Your task to perform on an android device: Clear the cart on ebay.com. Search for "usb-c to usb-b" on ebay.com, select the first entry, add it to the cart, then select checkout. Image 0: 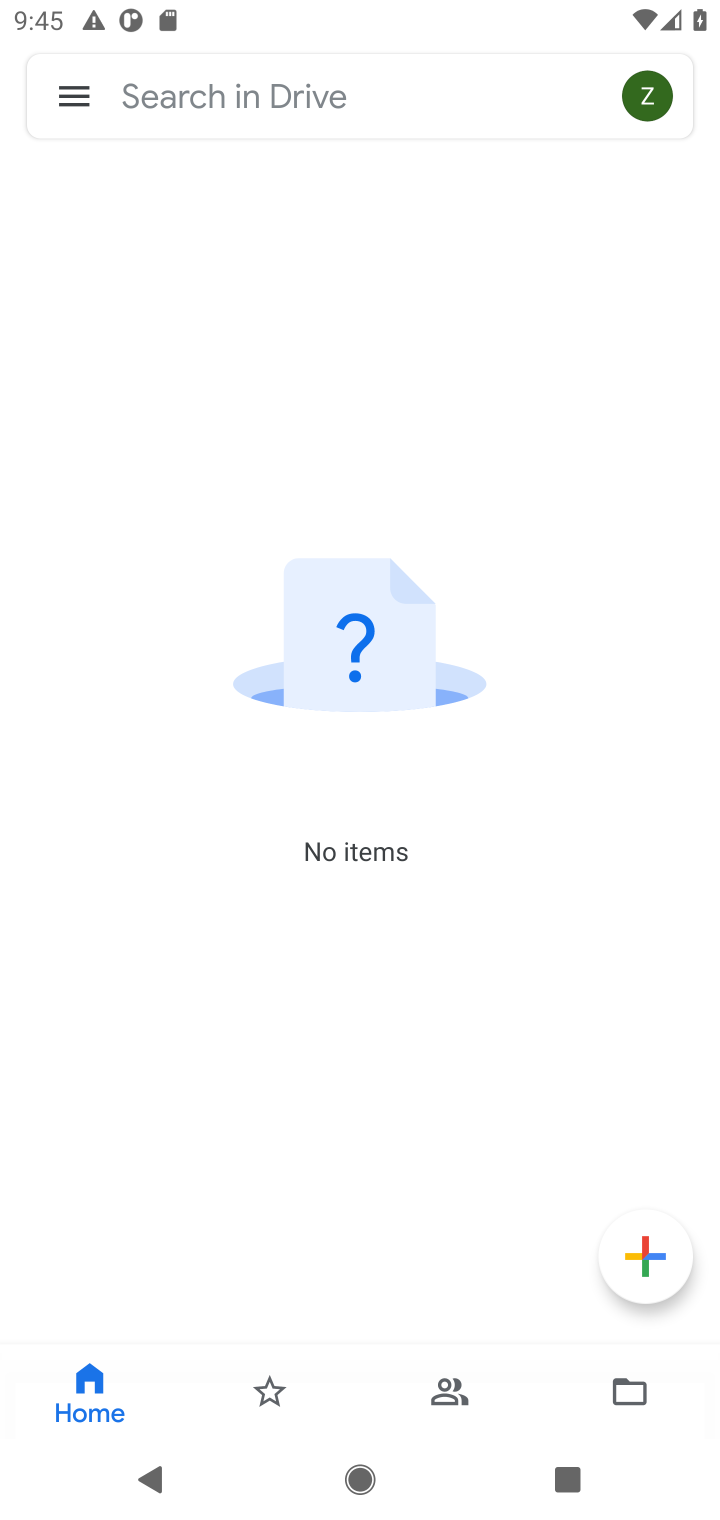
Step 0: press home button
Your task to perform on an android device: Clear the cart on ebay.com. Search for "usb-c to usb-b" on ebay.com, select the first entry, add it to the cart, then select checkout. Image 1: 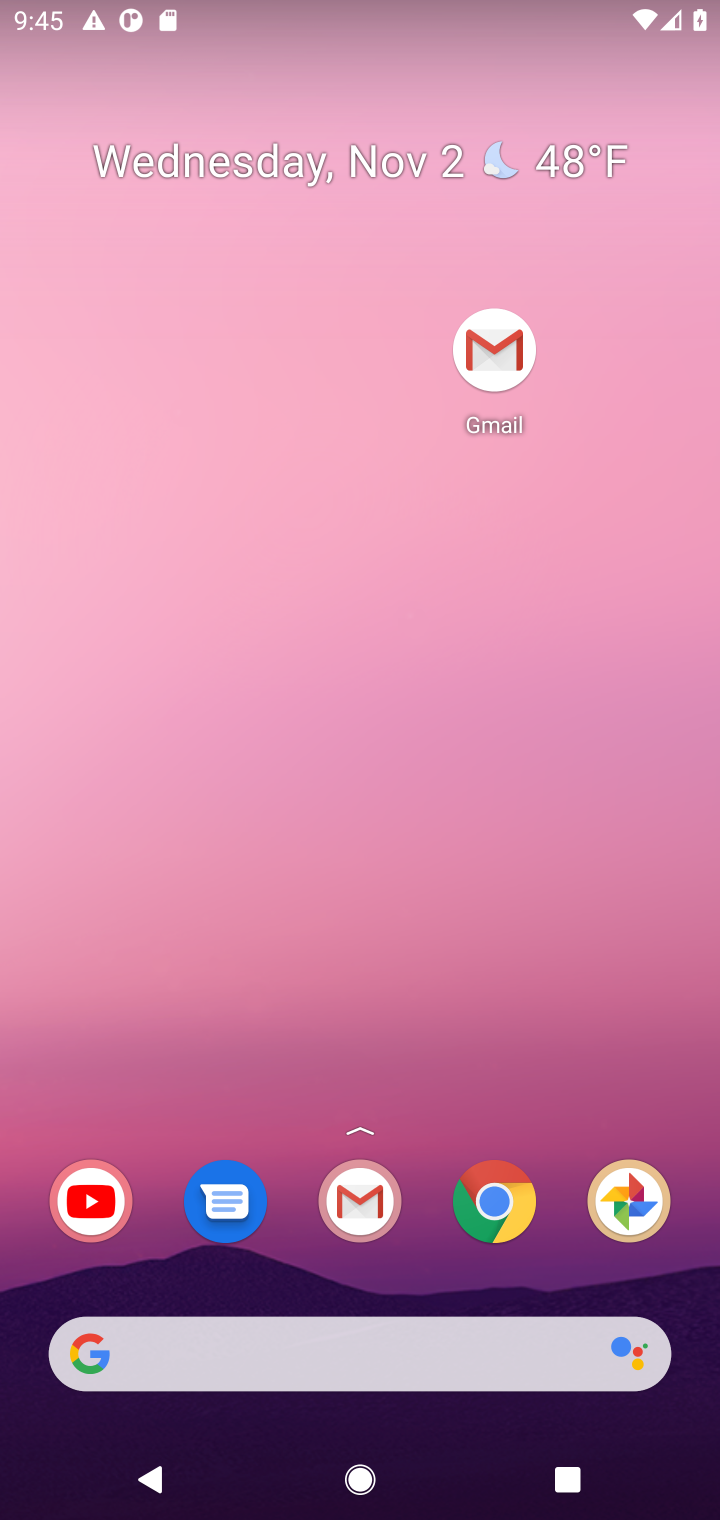
Step 1: drag from (443, 1136) to (381, 117)
Your task to perform on an android device: Clear the cart on ebay.com. Search for "usb-c to usb-b" on ebay.com, select the first entry, add it to the cart, then select checkout. Image 2: 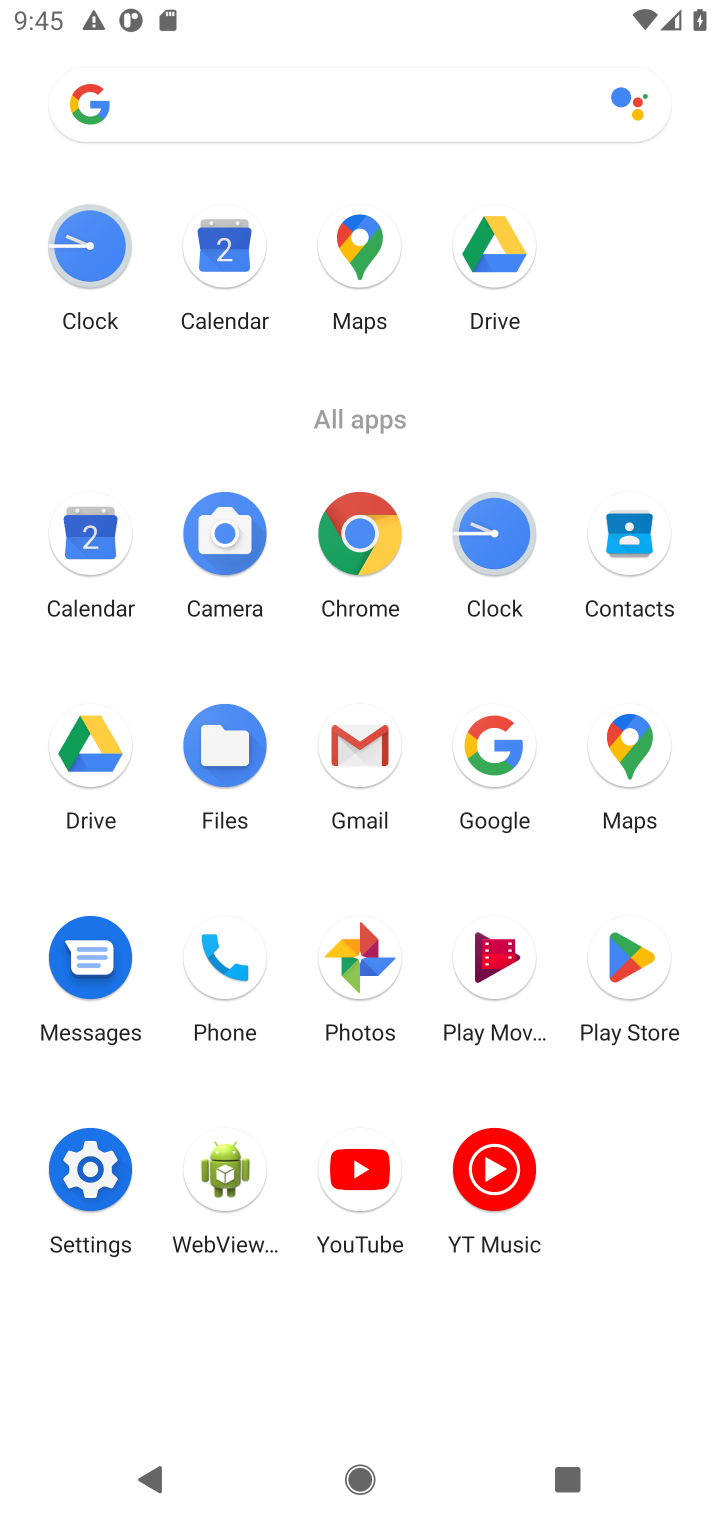
Step 2: click (360, 538)
Your task to perform on an android device: Clear the cart on ebay.com. Search for "usb-c to usb-b" on ebay.com, select the first entry, add it to the cart, then select checkout. Image 3: 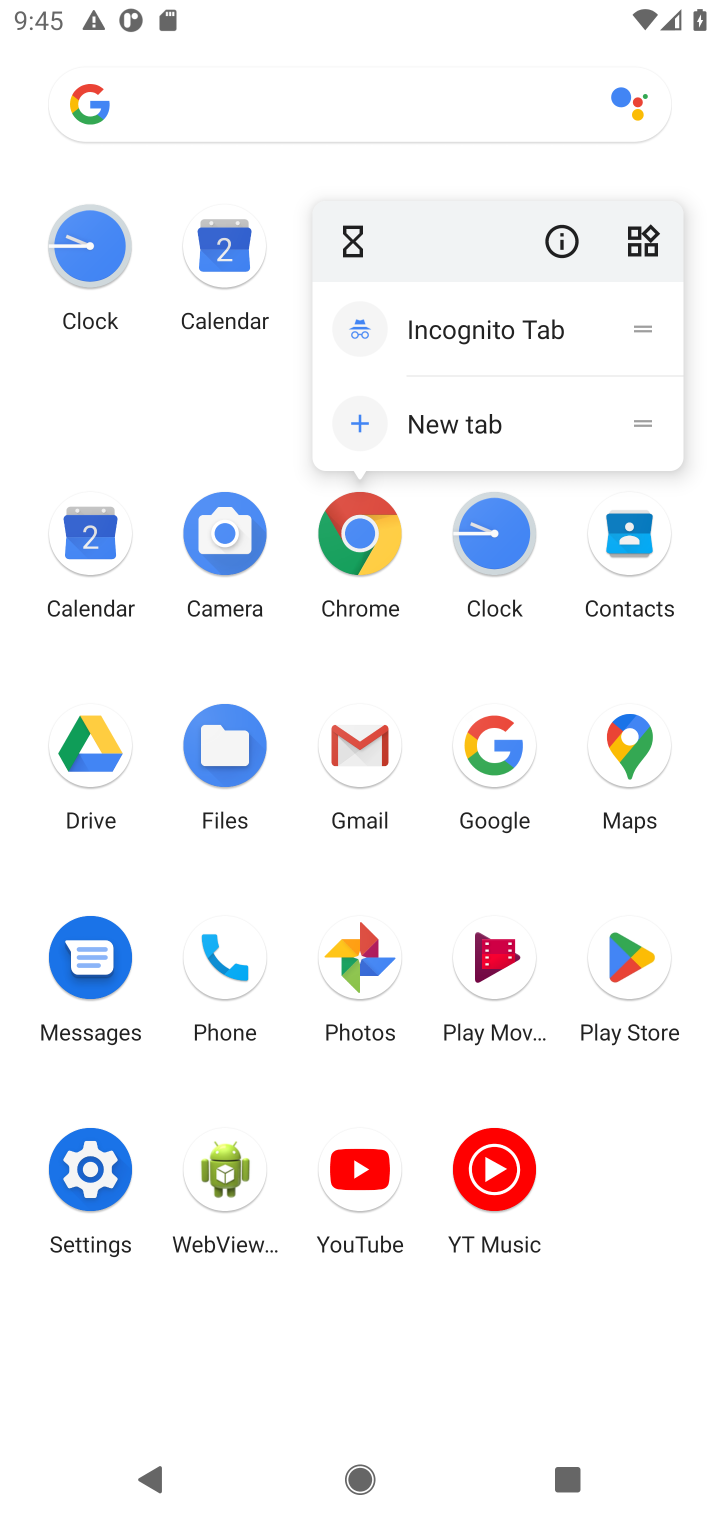
Step 3: click (360, 538)
Your task to perform on an android device: Clear the cart on ebay.com. Search for "usb-c to usb-b" on ebay.com, select the first entry, add it to the cart, then select checkout. Image 4: 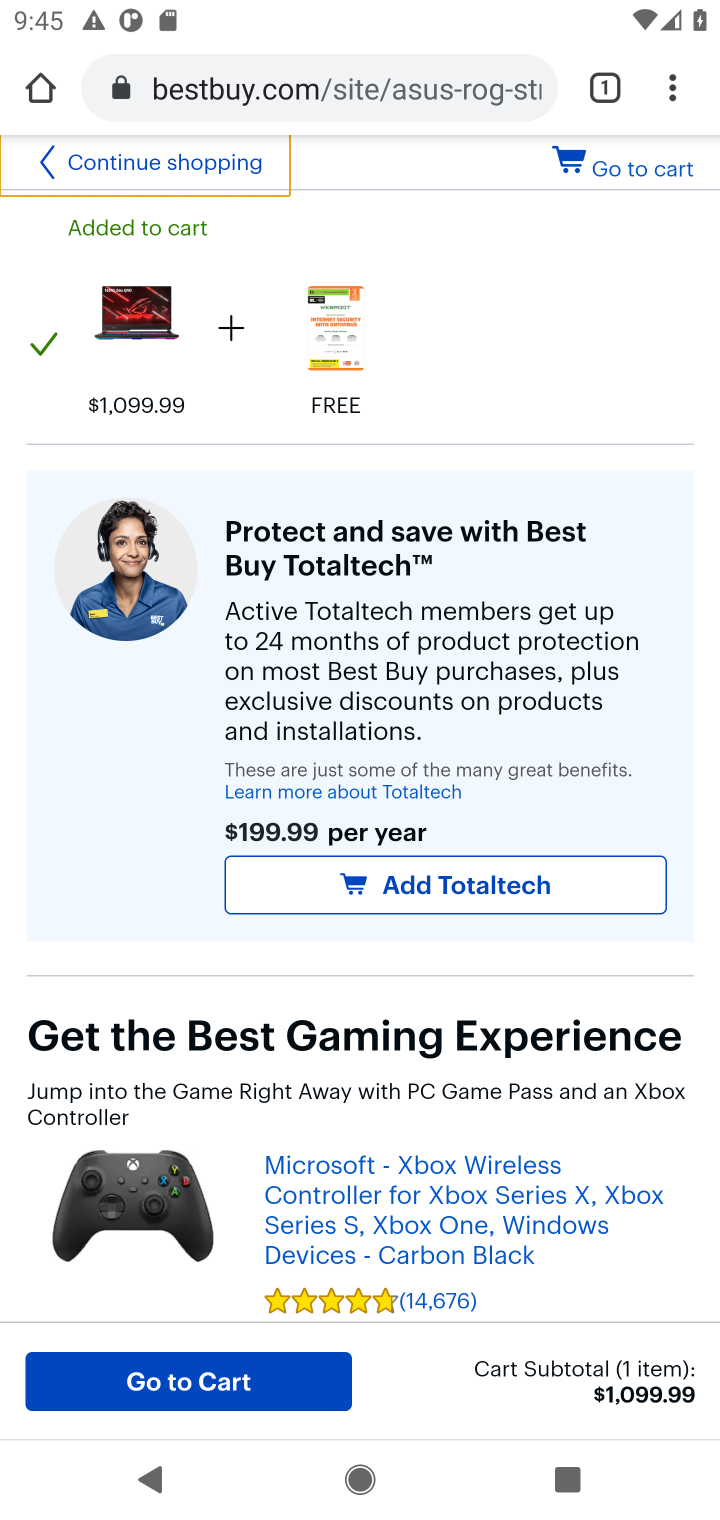
Step 4: click (360, 92)
Your task to perform on an android device: Clear the cart on ebay.com. Search for "usb-c to usb-b" on ebay.com, select the first entry, add it to the cart, then select checkout. Image 5: 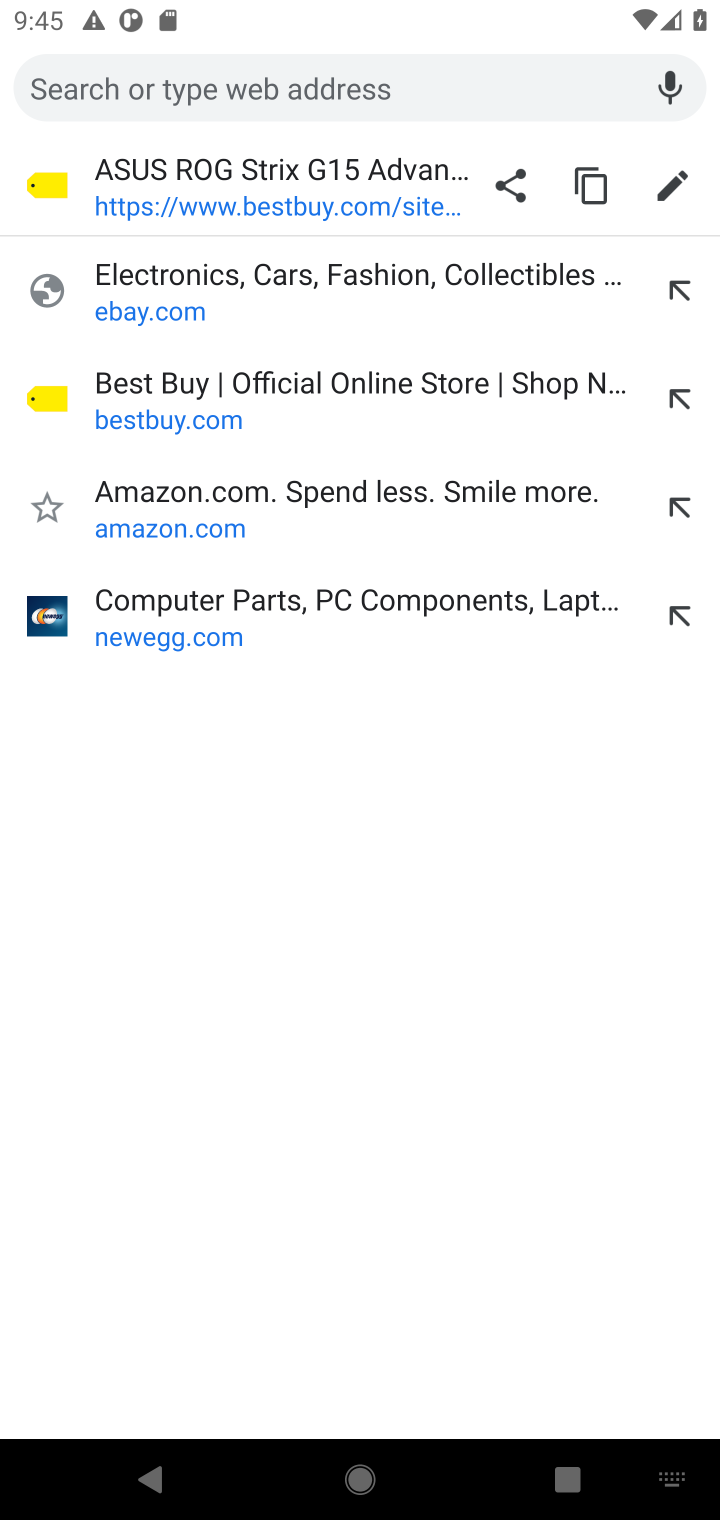
Step 5: type "ebay.com"
Your task to perform on an android device: Clear the cart on ebay.com. Search for "usb-c to usb-b" on ebay.com, select the first entry, add it to the cart, then select checkout. Image 6: 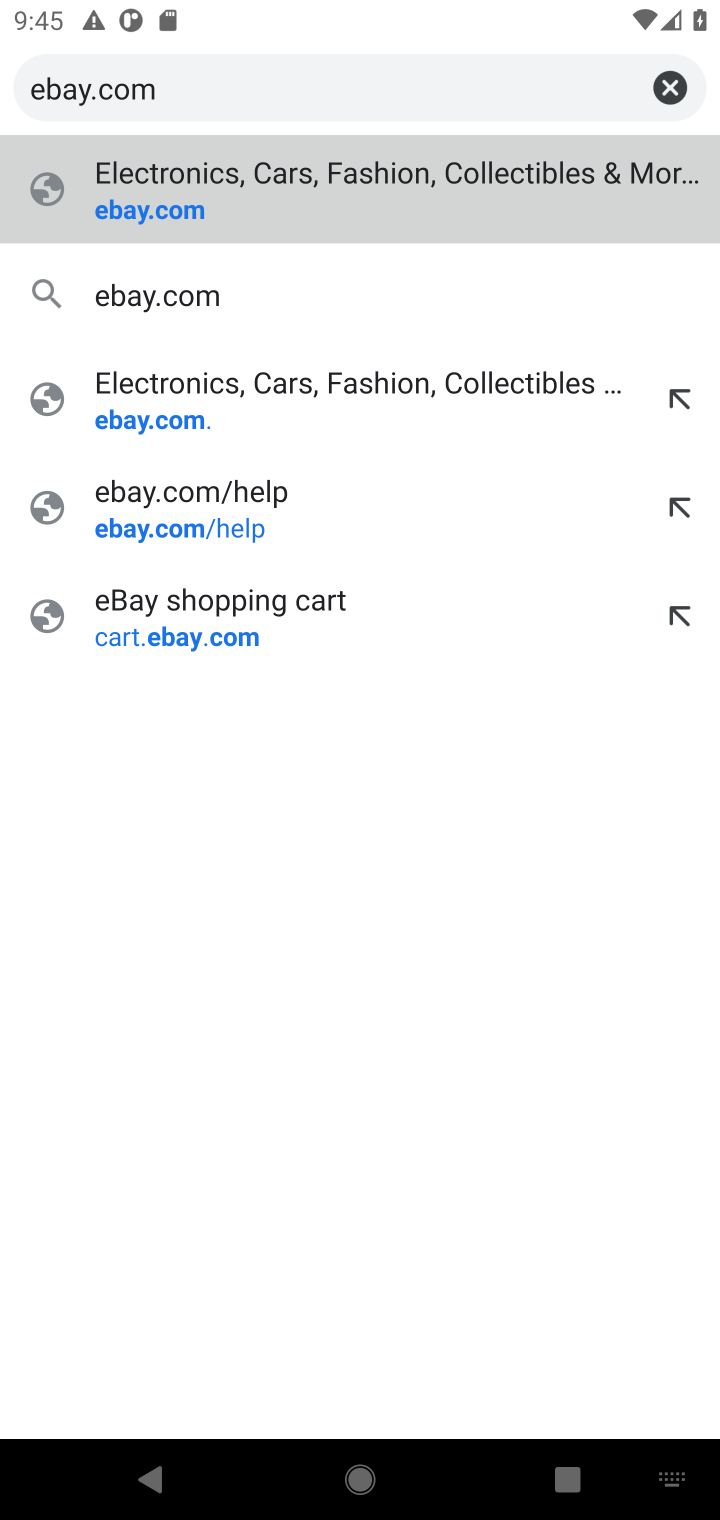
Step 6: press enter
Your task to perform on an android device: Clear the cart on ebay.com. Search for "usb-c to usb-b" on ebay.com, select the first entry, add it to the cart, then select checkout. Image 7: 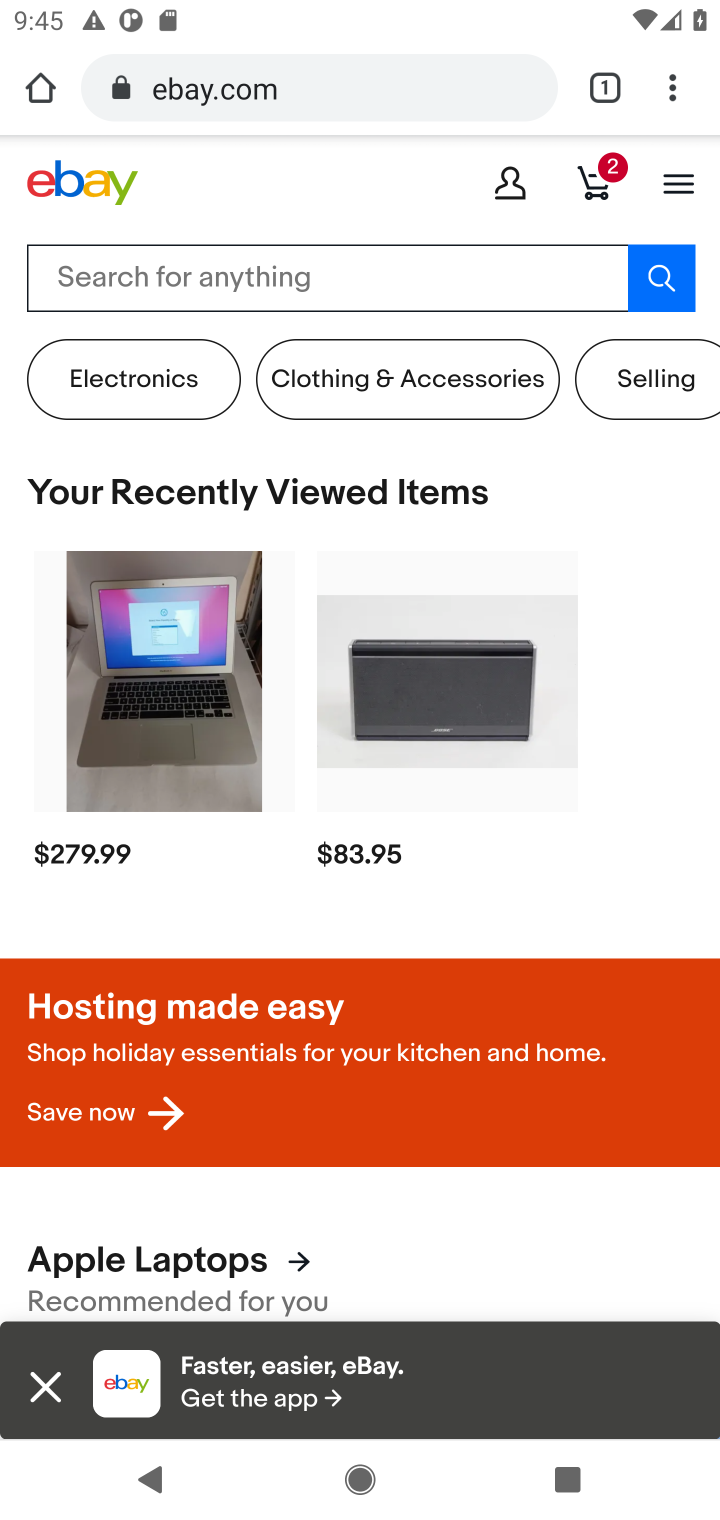
Step 7: click (604, 186)
Your task to perform on an android device: Clear the cart on ebay.com. Search for "usb-c to usb-b" on ebay.com, select the first entry, add it to the cart, then select checkout. Image 8: 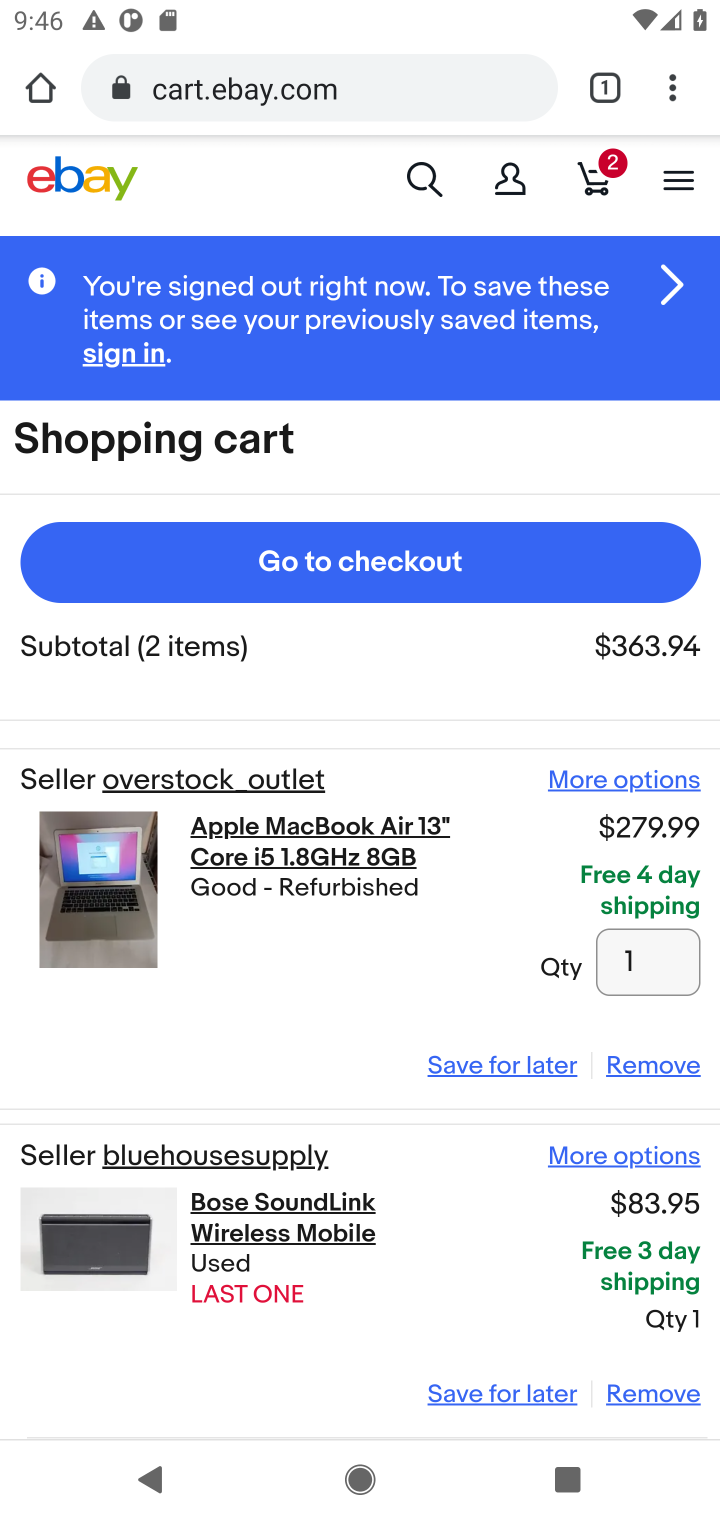
Step 8: click (628, 1066)
Your task to perform on an android device: Clear the cart on ebay.com. Search for "usb-c to usb-b" on ebay.com, select the first entry, add it to the cart, then select checkout. Image 9: 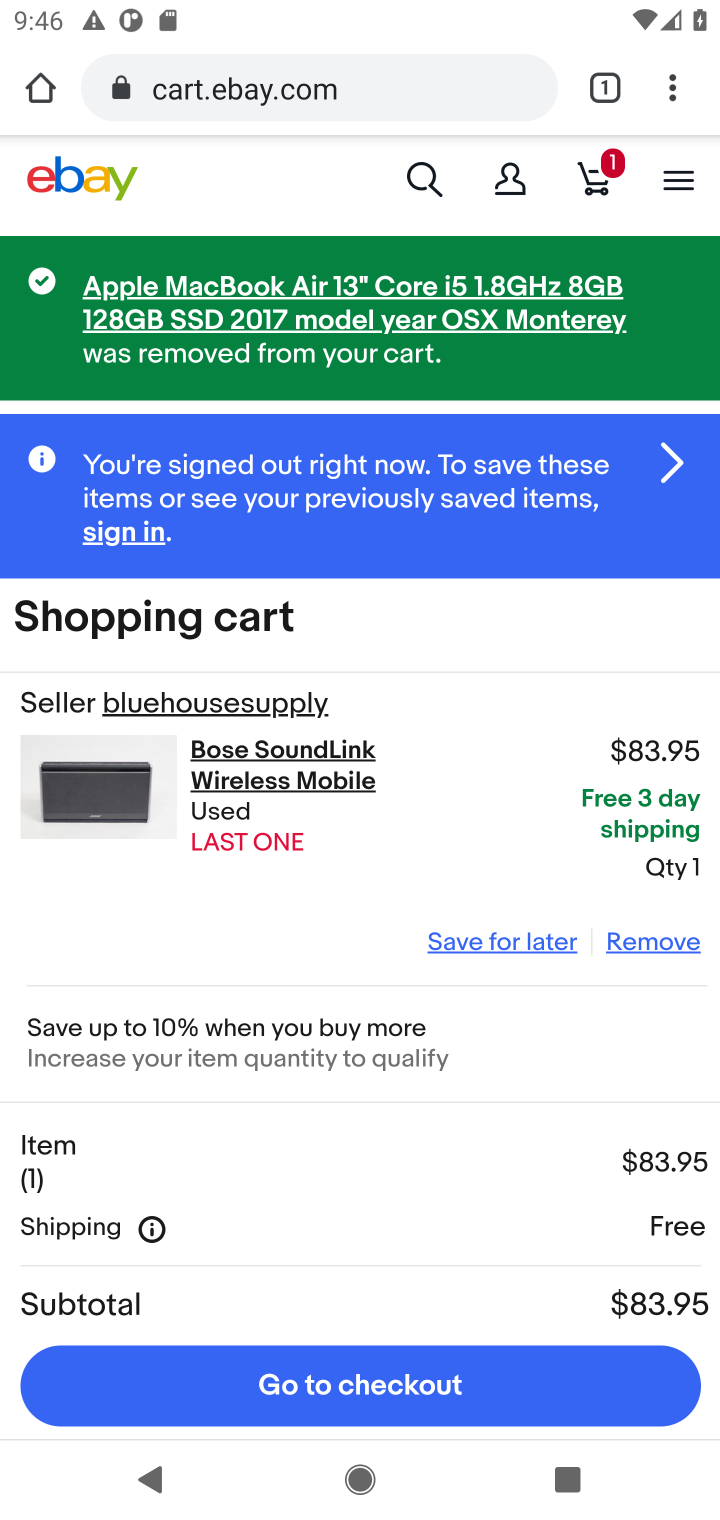
Step 9: click (649, 958)
Your task to perform on an android device: Clear the cart on ebay.com. Search for "usb-c to usb-b" on ebay.com, select the first entry, add it to the cart, then select checkout. Image 10: 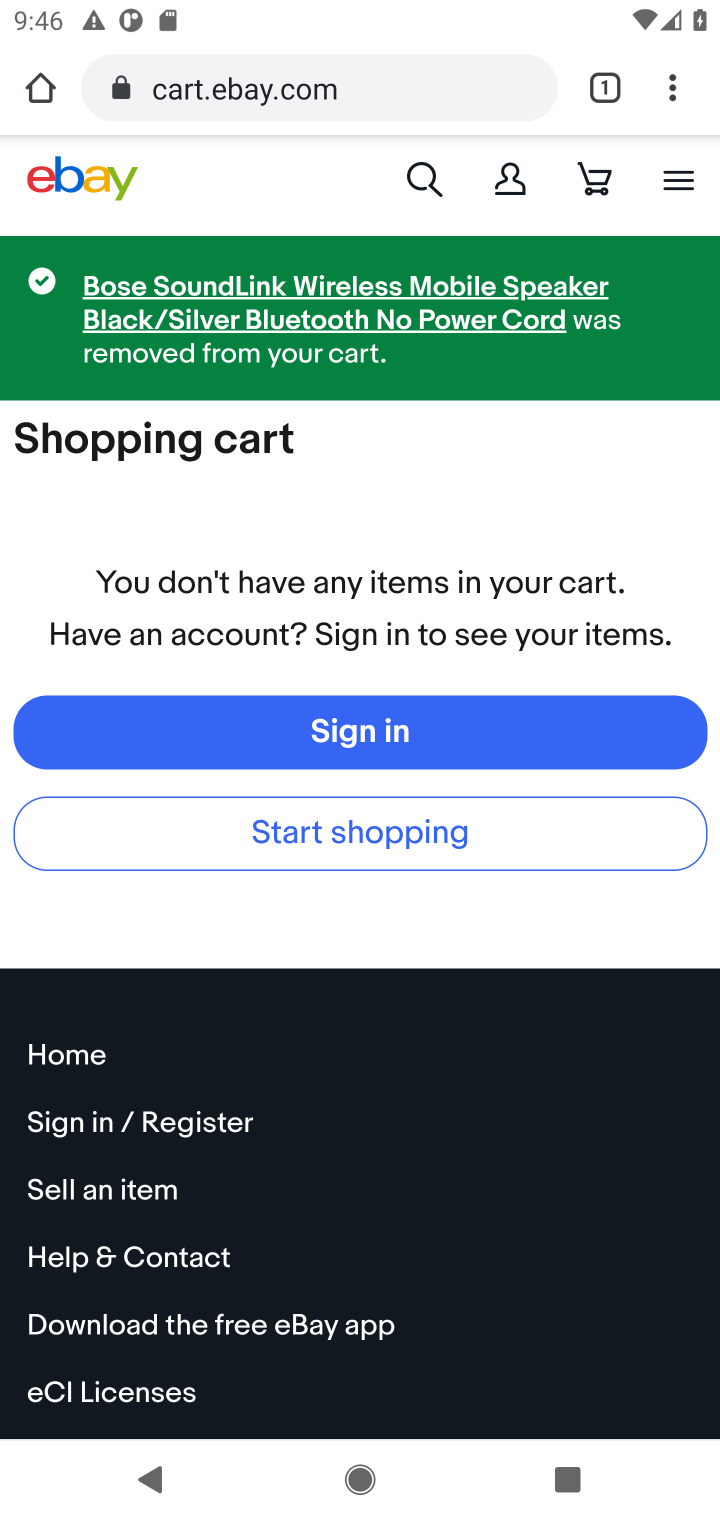
Step 10: click (395, 160)
Your task to perform on an android device: Clear the cart on ebay.com. Search for "usb-c to usb-b" on ebay.com, select the first entry, add it to the cart, then select checkout. Image 11: 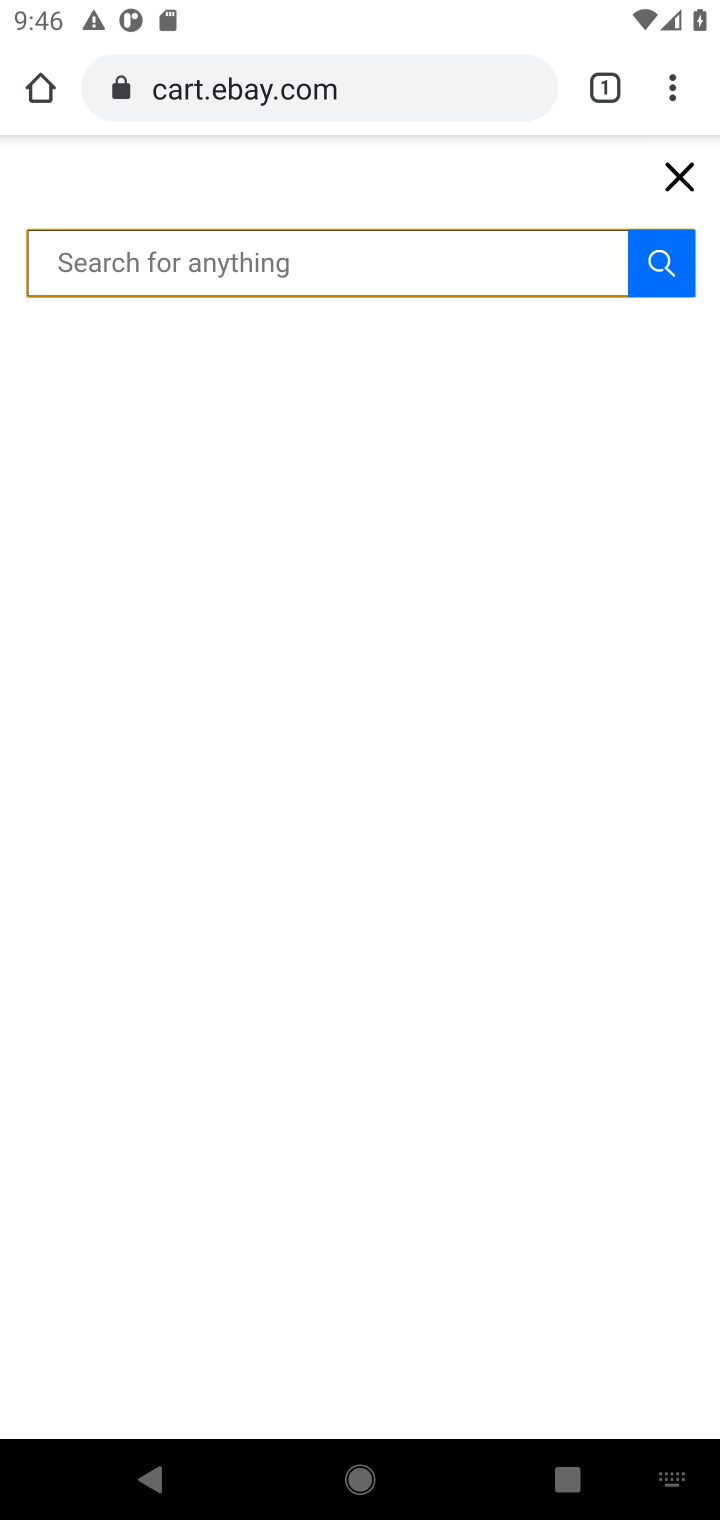
Step 11: type "usb-c to usb-b"
Your task to perform on an android device: Clear the cart on ebay.com. Search for "usb-c to usb-b" on ebay.com, select the first entry, add it to the cart, then select checkout. Image 12: 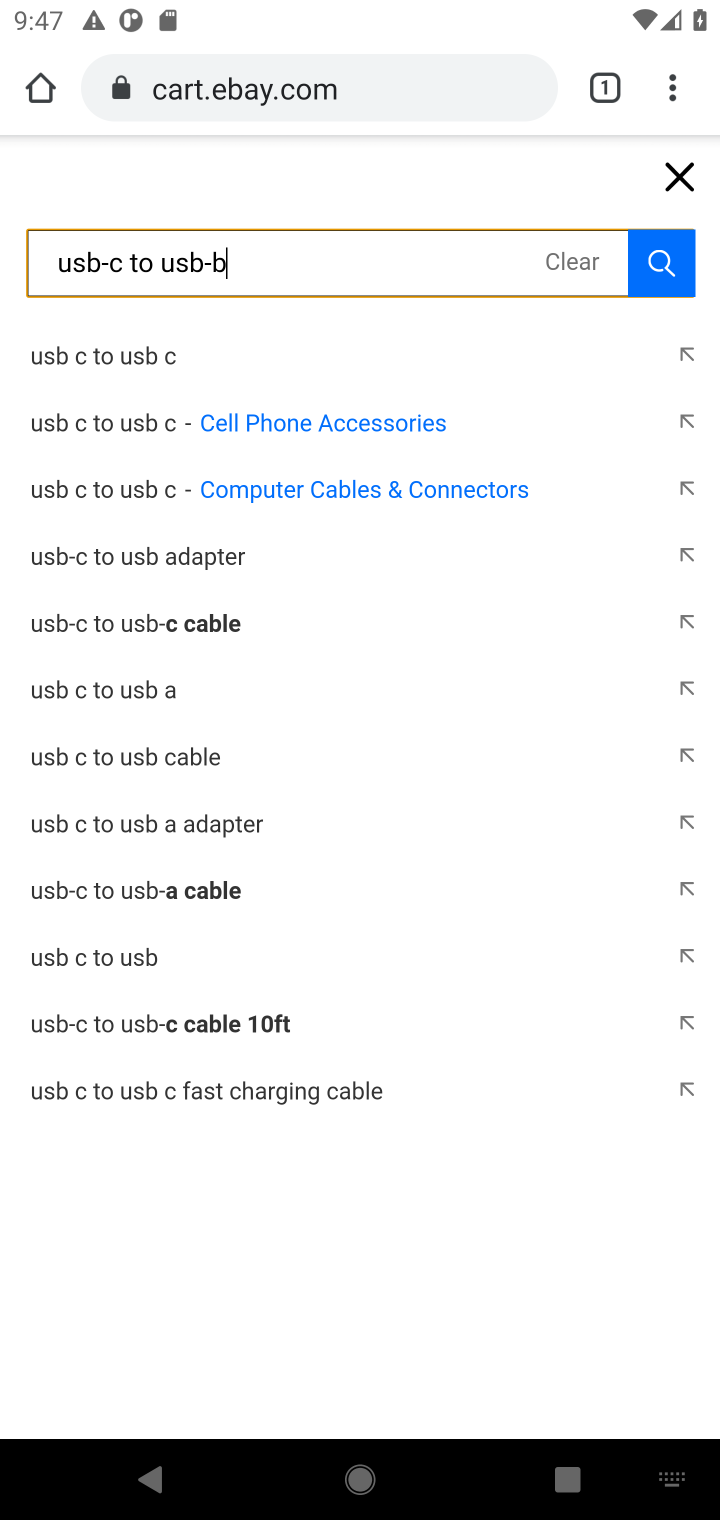
Step 12: click (674, 280)
Your task to perform on an android device: Clear the cart on ebay.com. Search for "usb-c to usb-b" on ebay.com, select the first entry, add it to the cart, then select checkout. Image 13: 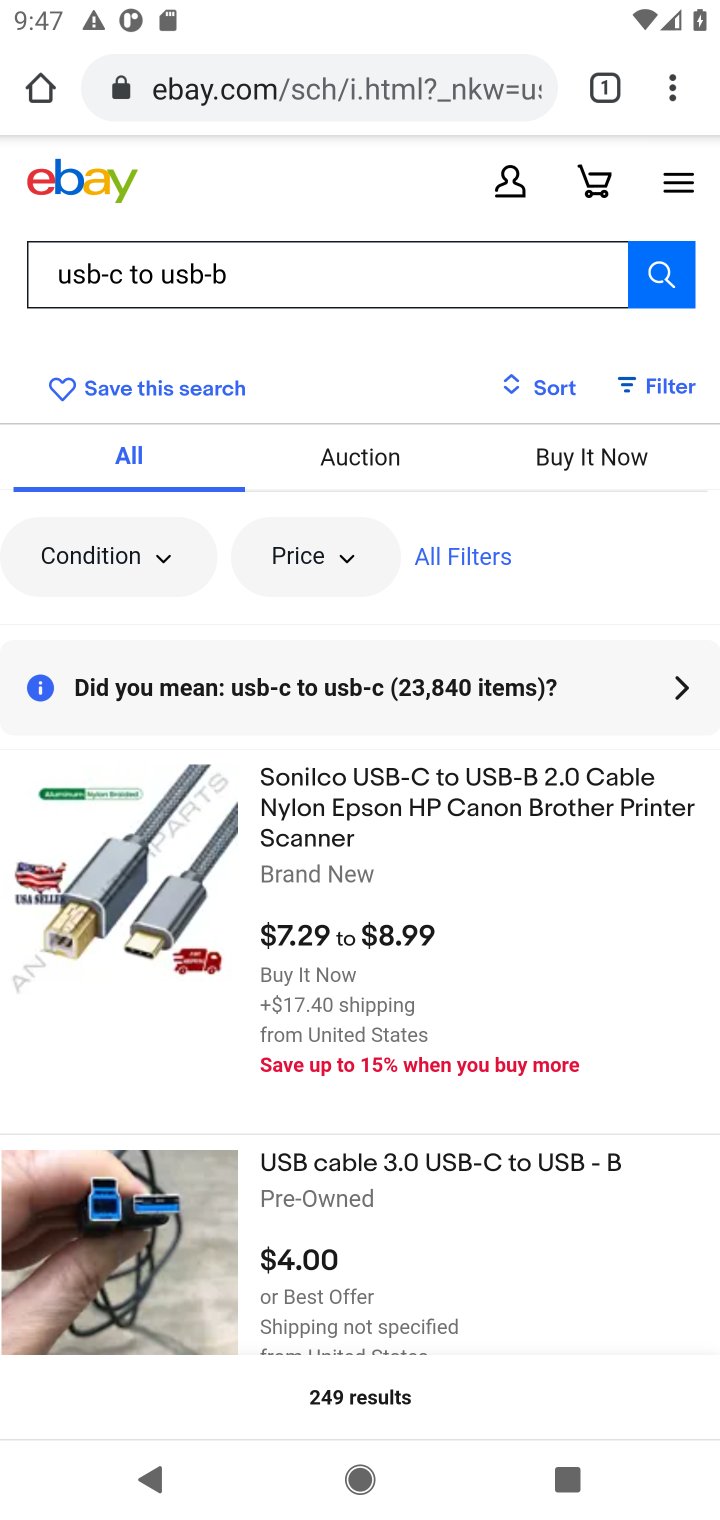
Step 13: click (149, 873)
Your task to perform on an android device: Clear the cart on ebay.com. Search for "usb-c to usb-b" on ebay.com, select the first entry, add it to the cart, then select checkout. Image 14: 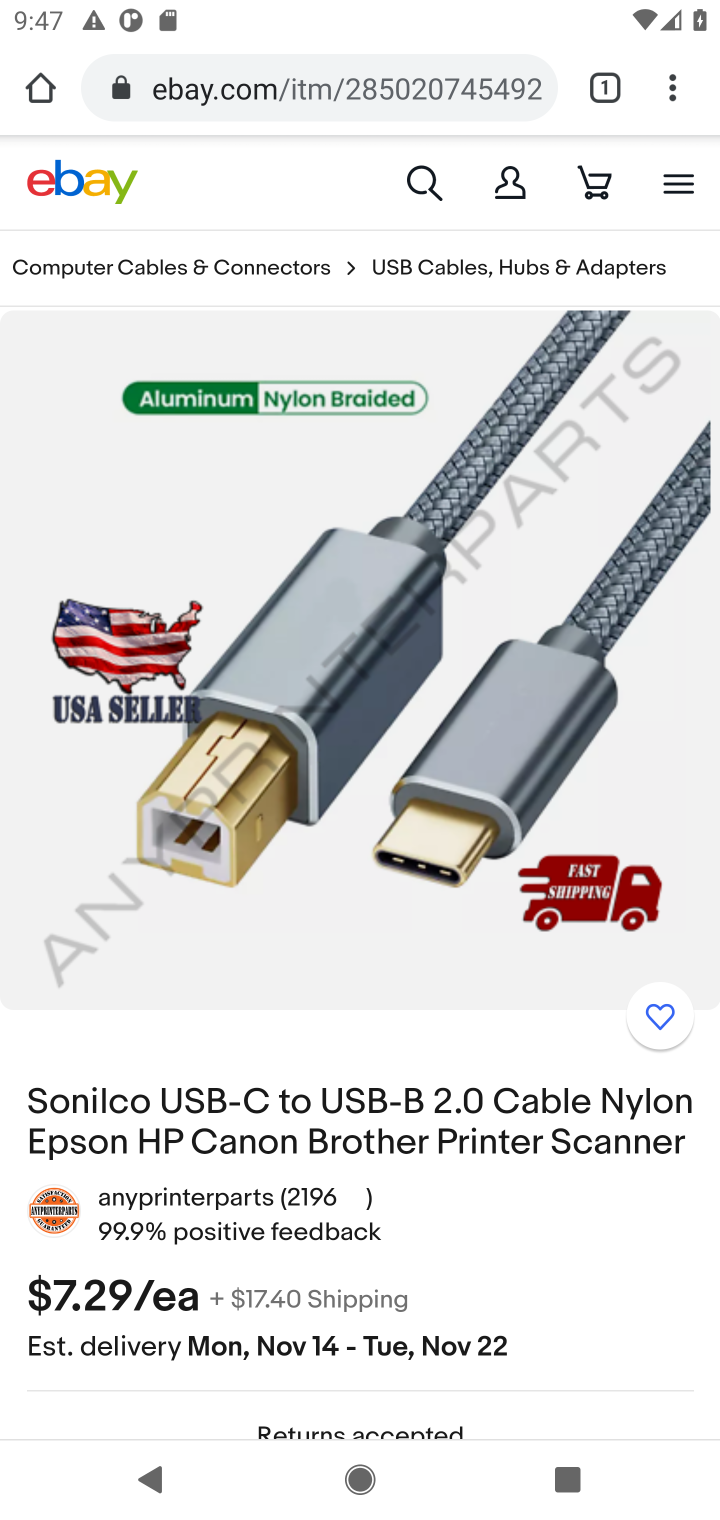
Step 14: drag from (435, 1197) to (419, 377)
Your task to perform on an android device: Clear the cart on ebay.com. Search for "usb-c to usb-b" on ebay.com, select the first entry, add it to the cart, then select checkout. Image 15: 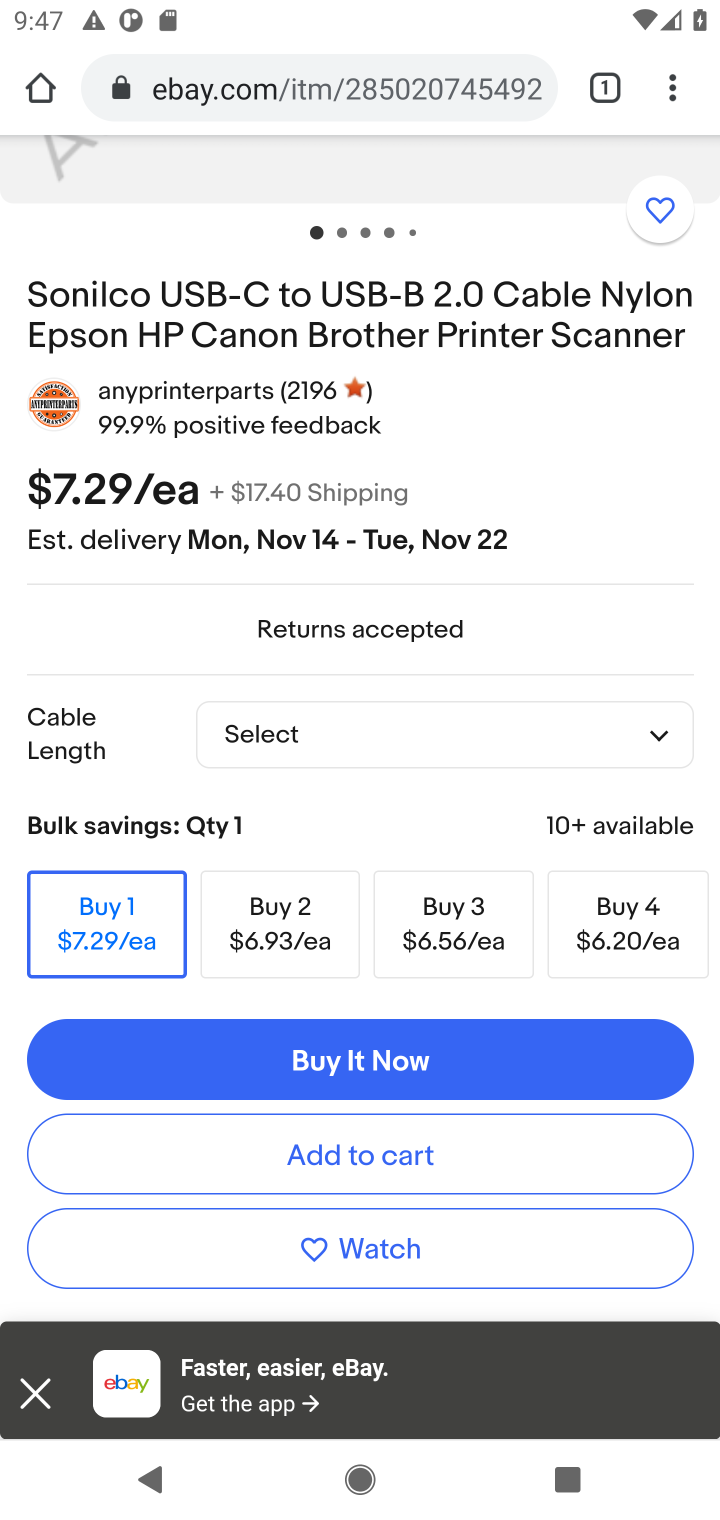
Step 15: click (350, 1152)
Your task to perform on an android device: Clear the cart on ebay.com. Search for "usb-c to usb-b" on ebay.com, select the first entry, add it to the cart, then select checkout. Image 16: 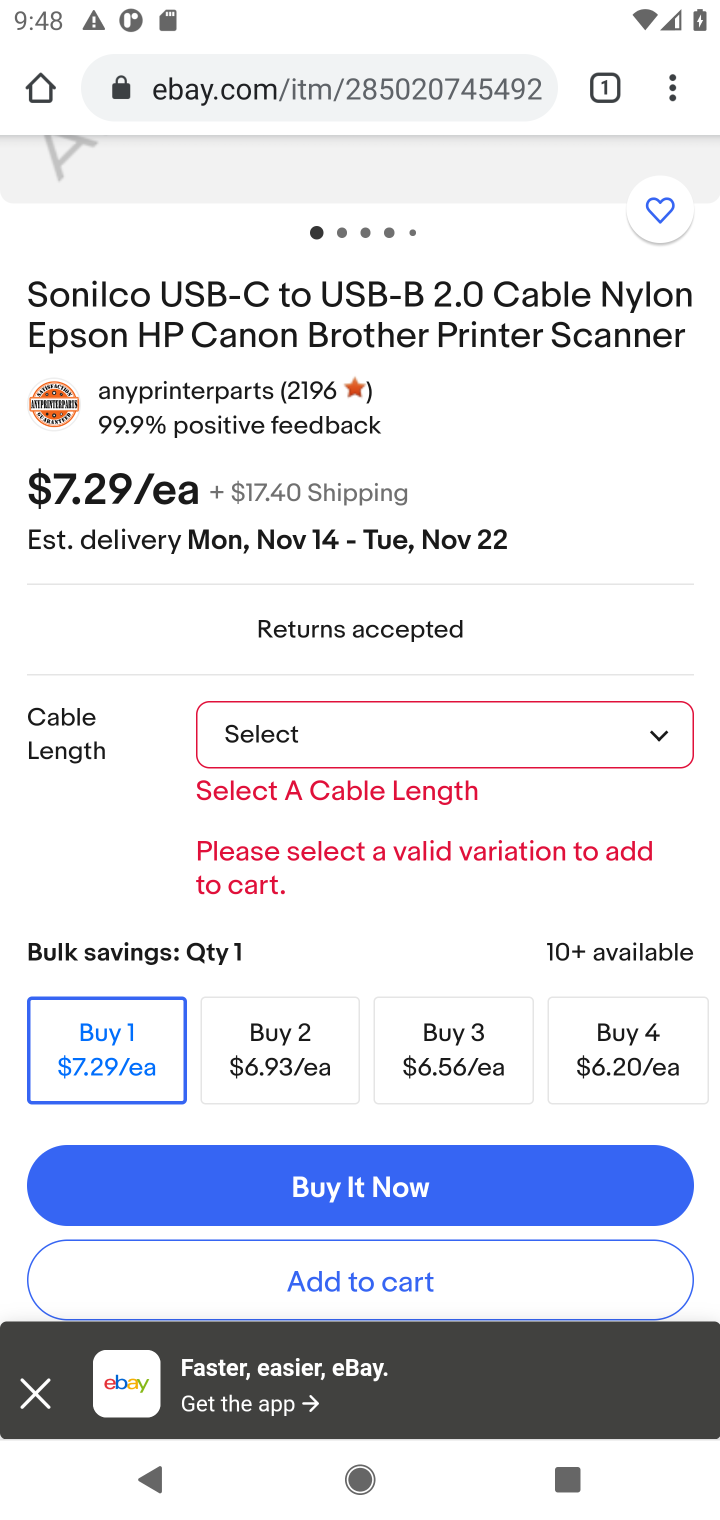
Step 16: drag from (434, 387) to (430, 242)
Your task to perform on an android device: Clear the cart on ebay.com. Search for "usb-c to usb-b" on ebay.com, select the first entry, add it to the cart, then select checkout. Image 17: 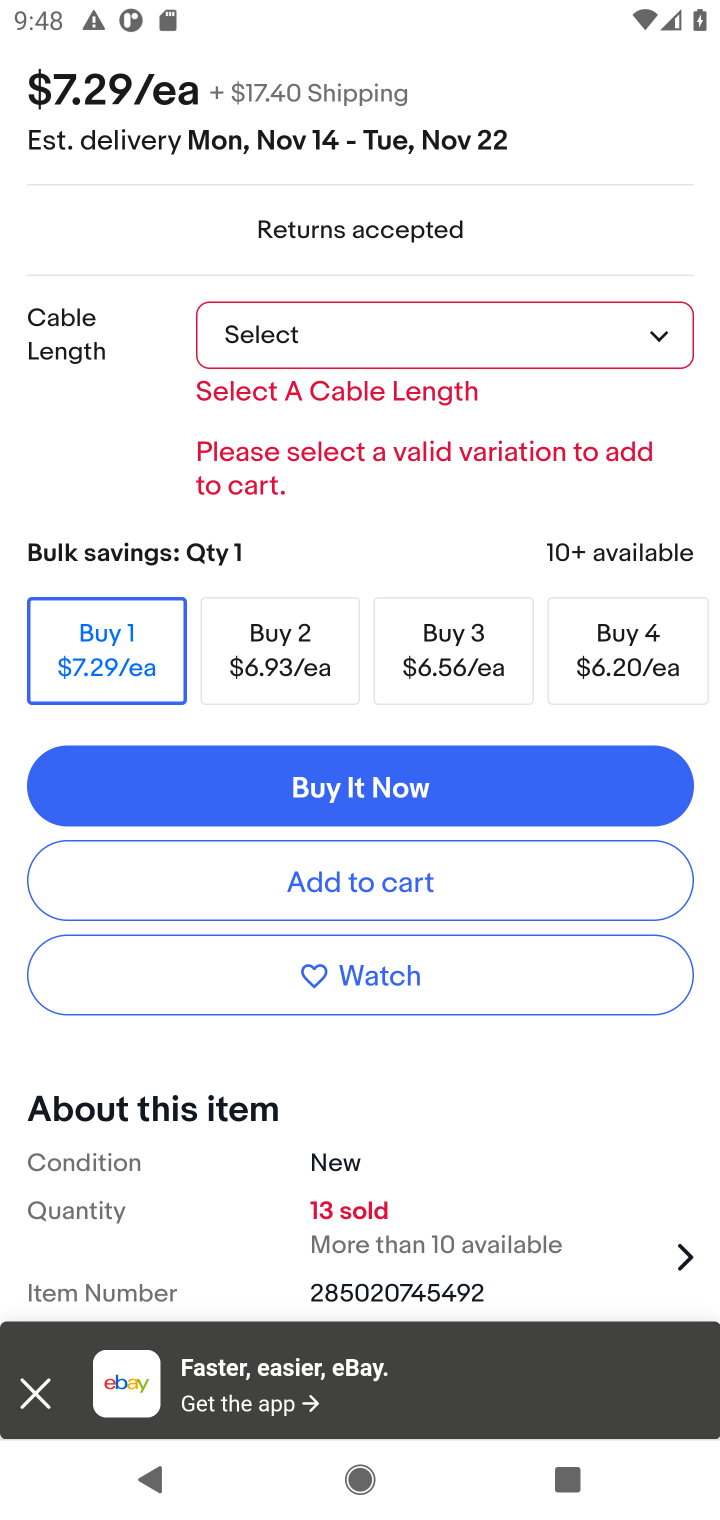
Step 17: click (466, 344)
Your task to perform on an android device: Clear the cart on ebay.com. Search for "usb-c to usb-b" on ebay.com, select the first entry, add it to the cart, then select checkout. Image 18: 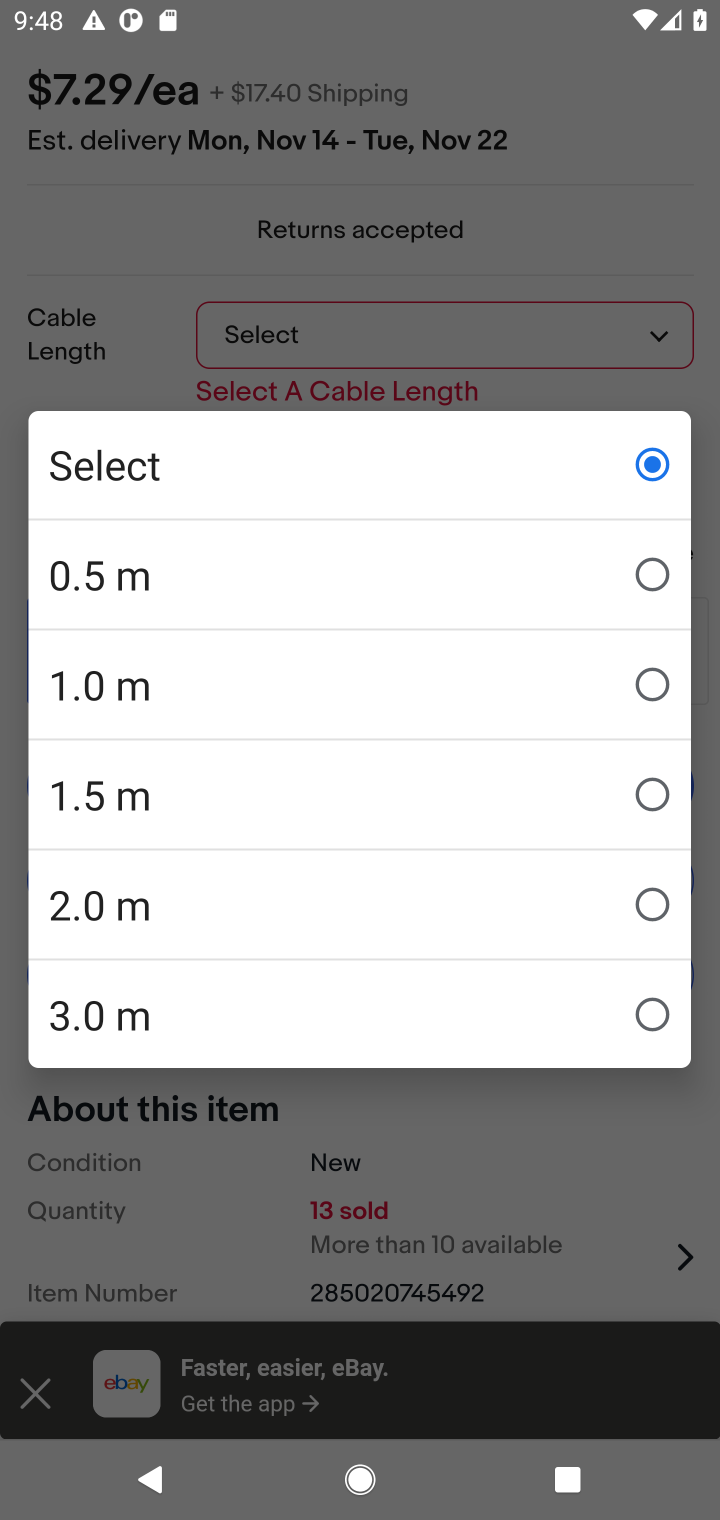
Step 18: click (404, 580)
Your task to perform on an android device: Clear the cart on ebay.com. Search for "usb-c to usb-b" on ebay.com, select the first entry, add it to the cart, then select checkout. Image 19: 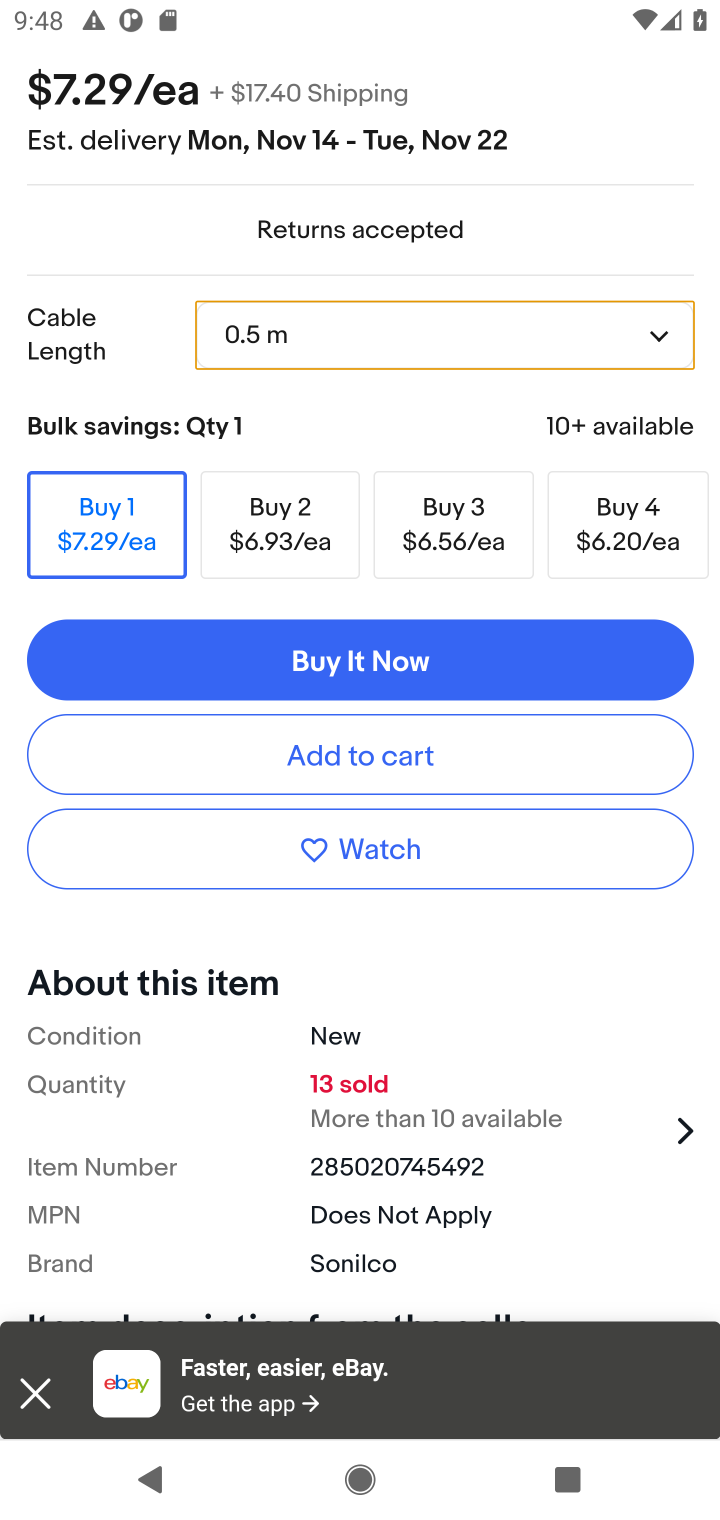
Step 19: click (401, 766)
Your task to perform on an android device: Clear the cart on ebay.com. Search for "usb-c to usb-b" on ebay.com, select the first entry, add it to the cart, then select checkout. Image 20: 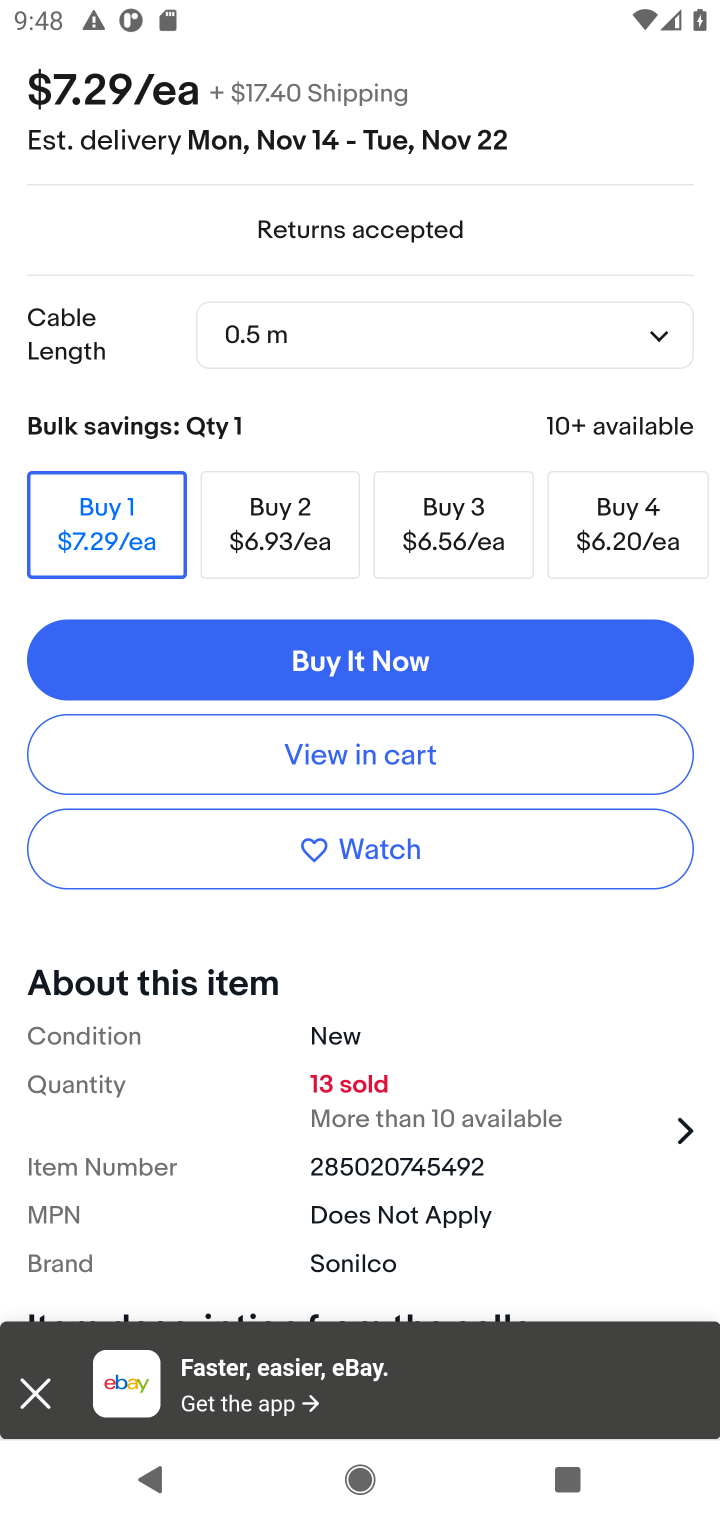
Step 20: click (401, 766)
Your task to perform on an android device: Clear the cart on ebay.com. Search for "usb-c to usb-b" on ebay.com, select the first entry, add it to the cart, then select checkout. Image 21: 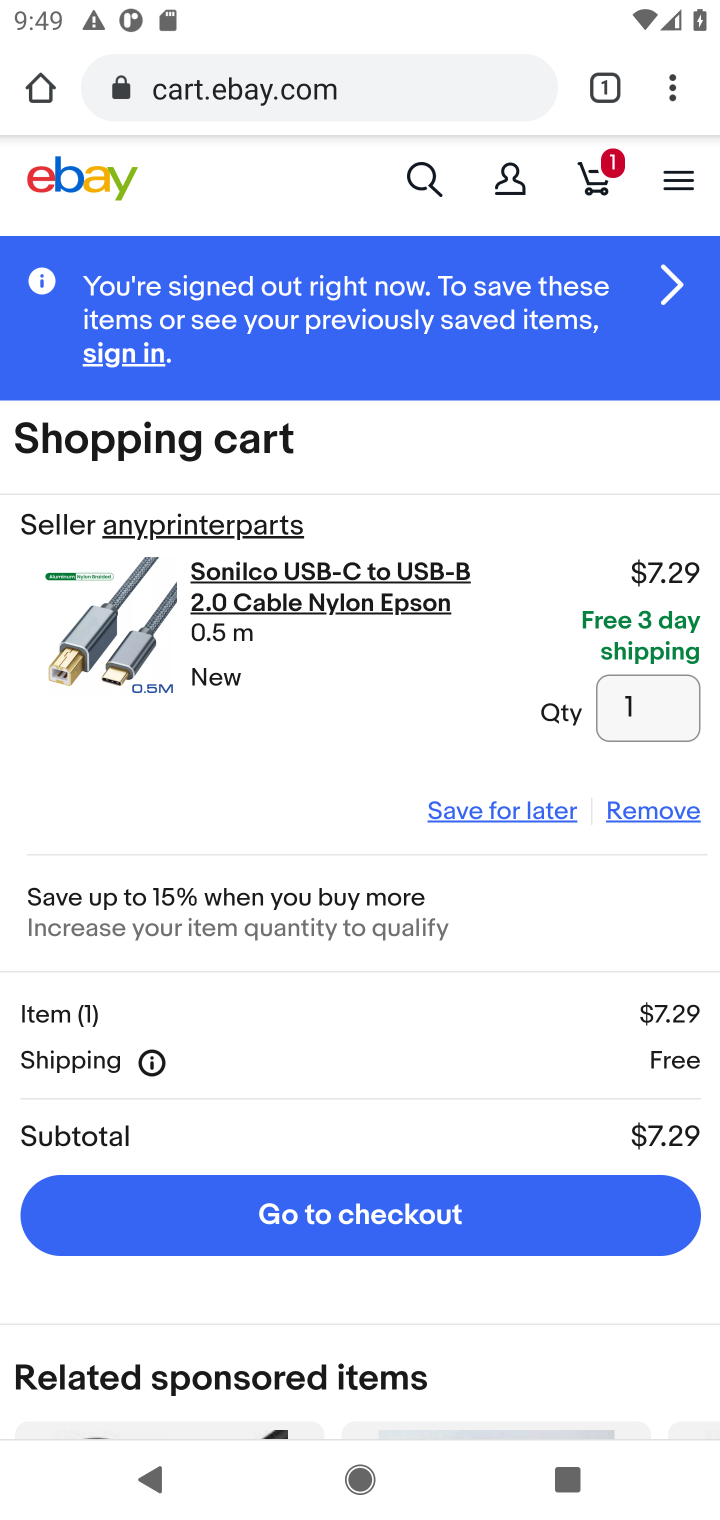
Step 21: click (547, 1212)
Your task to perform on an android device: Clear the cart on ebay.com. Search for "usb-c to usb-b" on ebay.com, select the first entry, add it to the cart, then select checkout. Image 22: 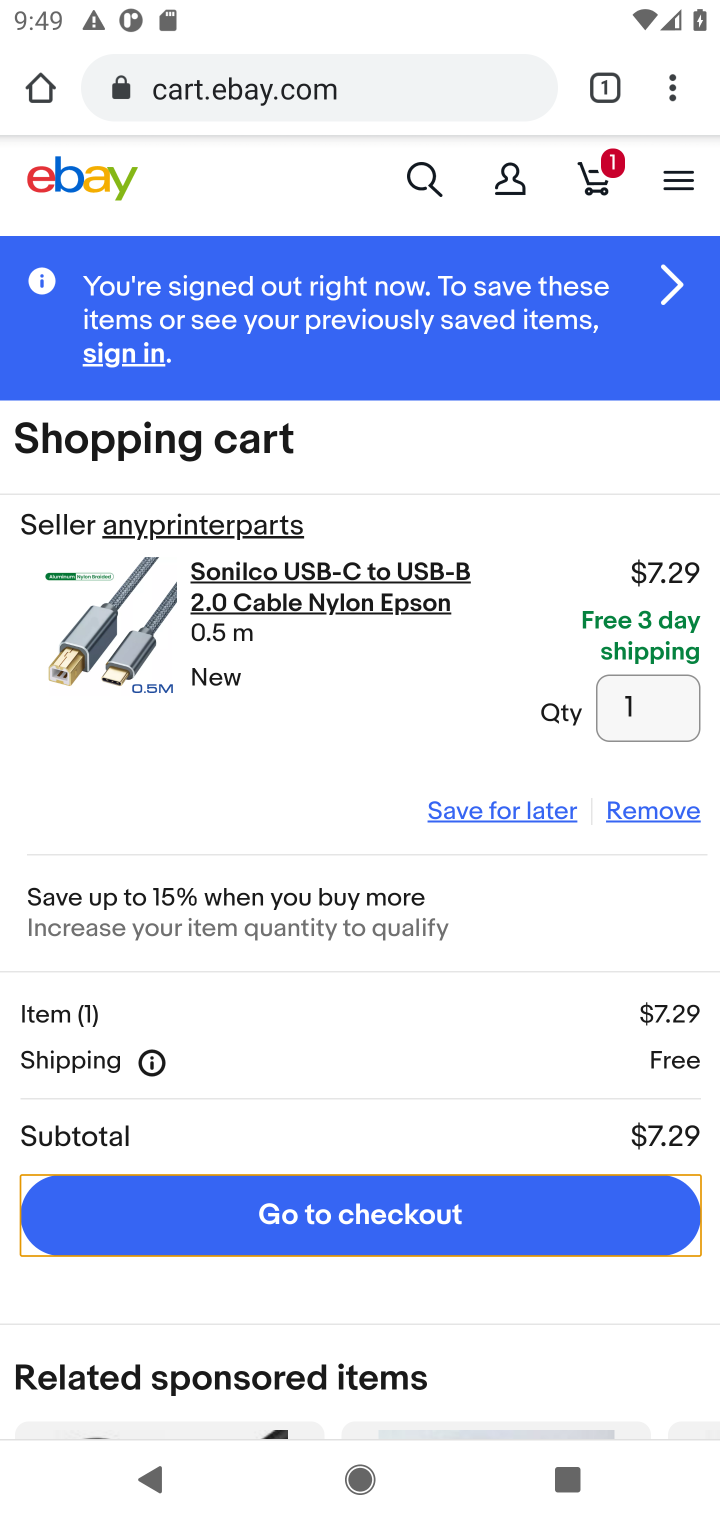
Step 22: click (416, 1211)
Your task to perform on an android device: Clear the cart on ebay.com. Search for "usb-c to usb-b" on ebay.com, select the first entry, add it to the cart, then select checkout. Image 23: 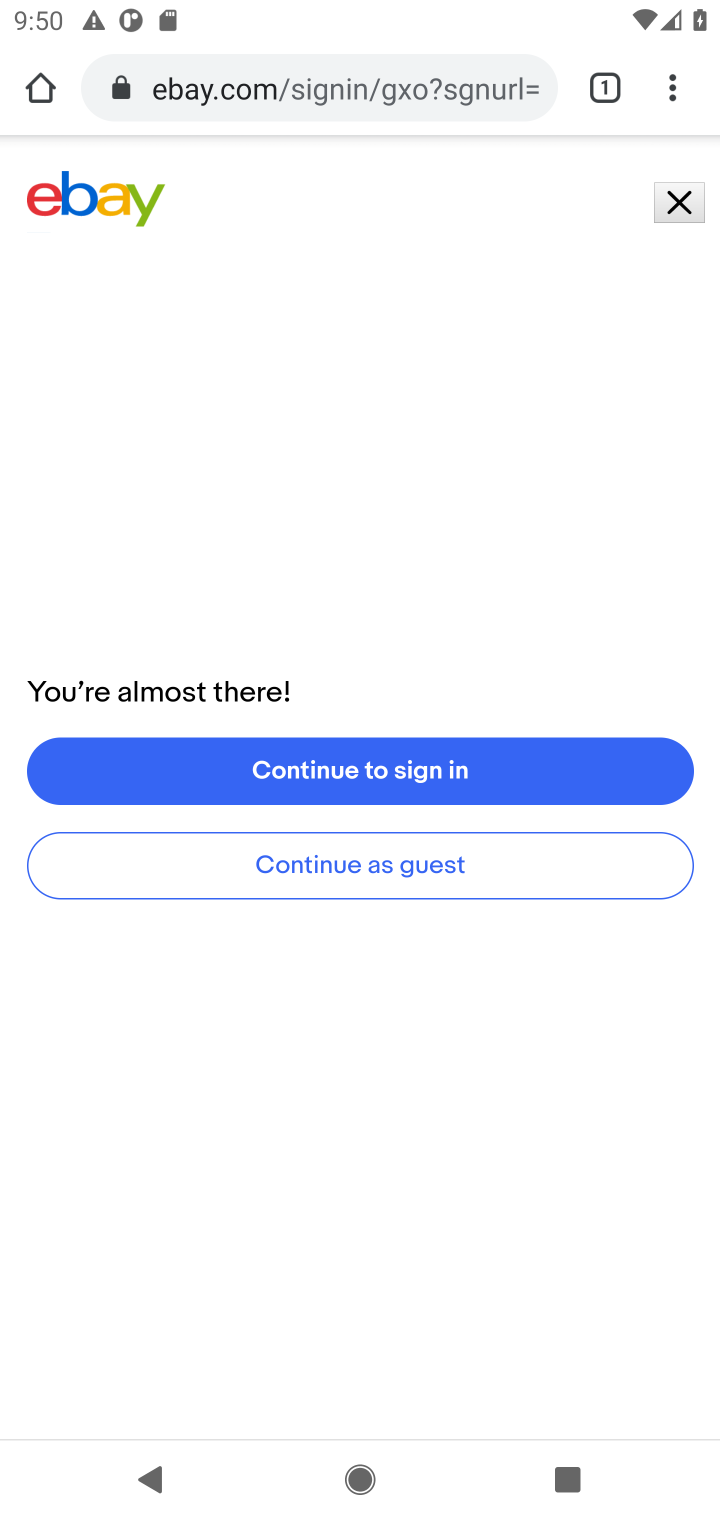
Step 23: task complete